Your task to perform on an android device: toggle wifi Image 0: 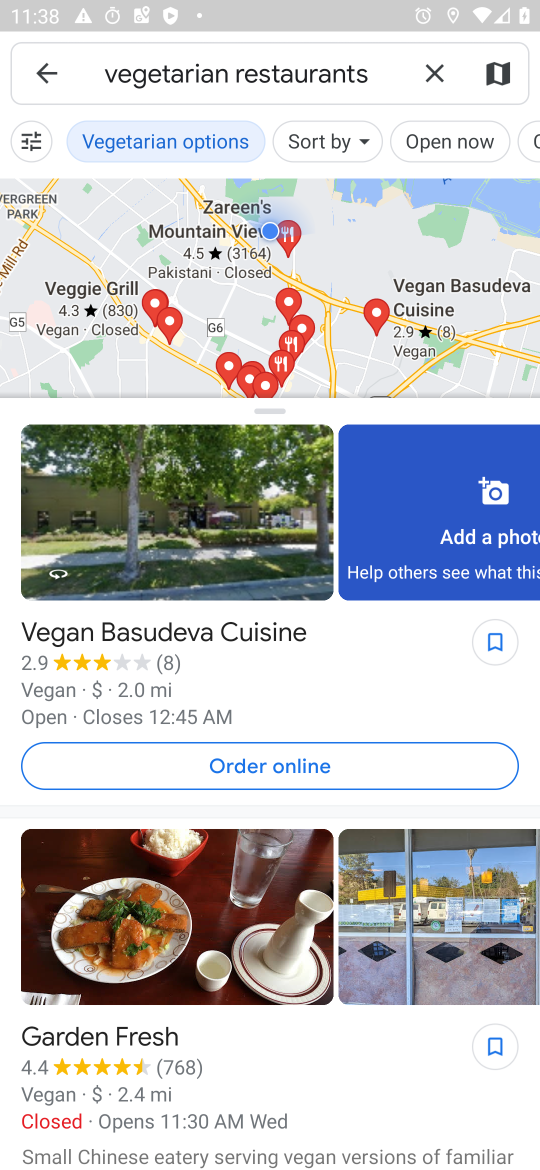
Step 0: press home button
Your task to perform on an android device: toggle wifi Image 1: 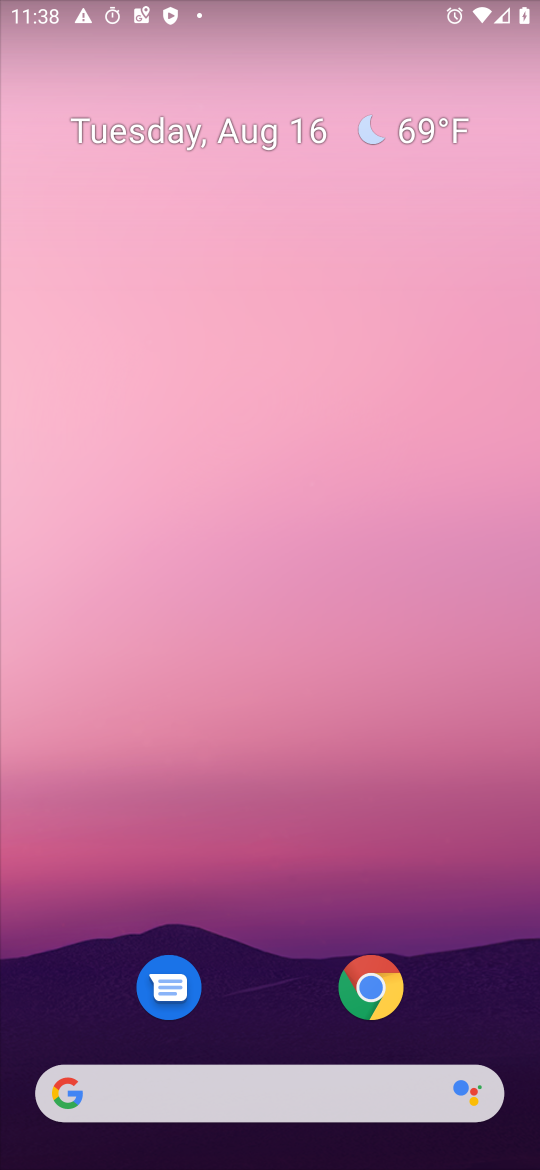
Step 1: drag from (18, 1140) to (349, 198)
Your task to perform on an android device: toggle wifi Image 2: 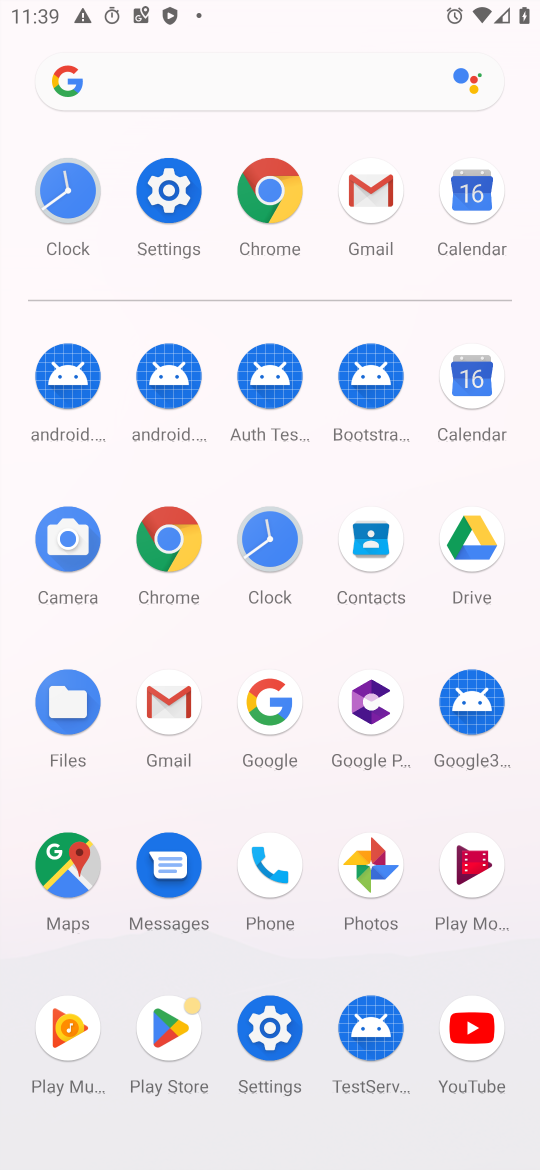
Step 2: click (292, 1019)
Your task to perform on an android device: toggle wifi Image 3: 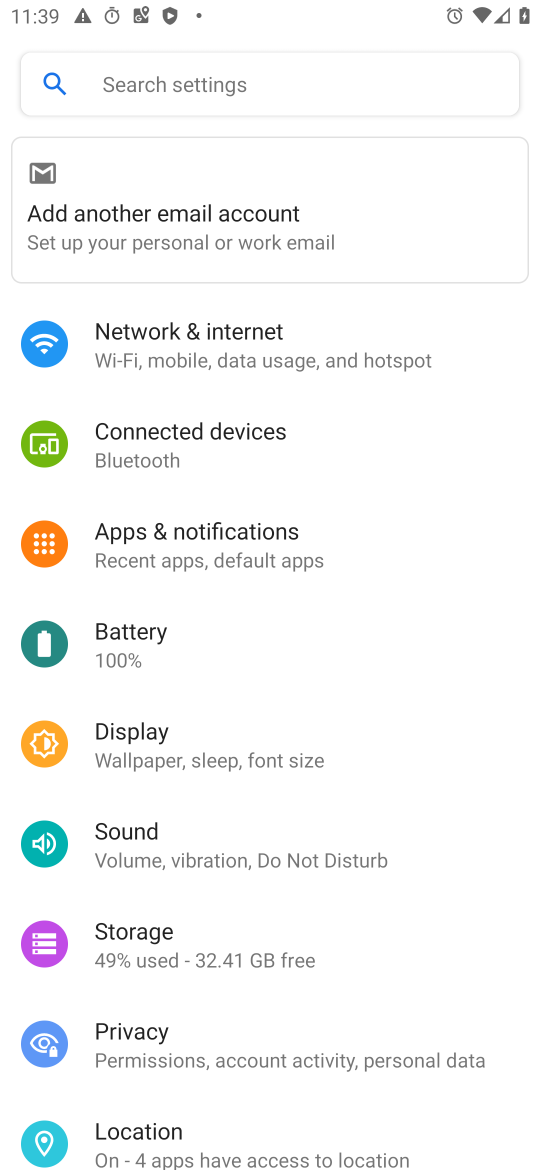
Step 3: click (163, 343)
Your task to perform on an android device: toggle wifi Image 4: 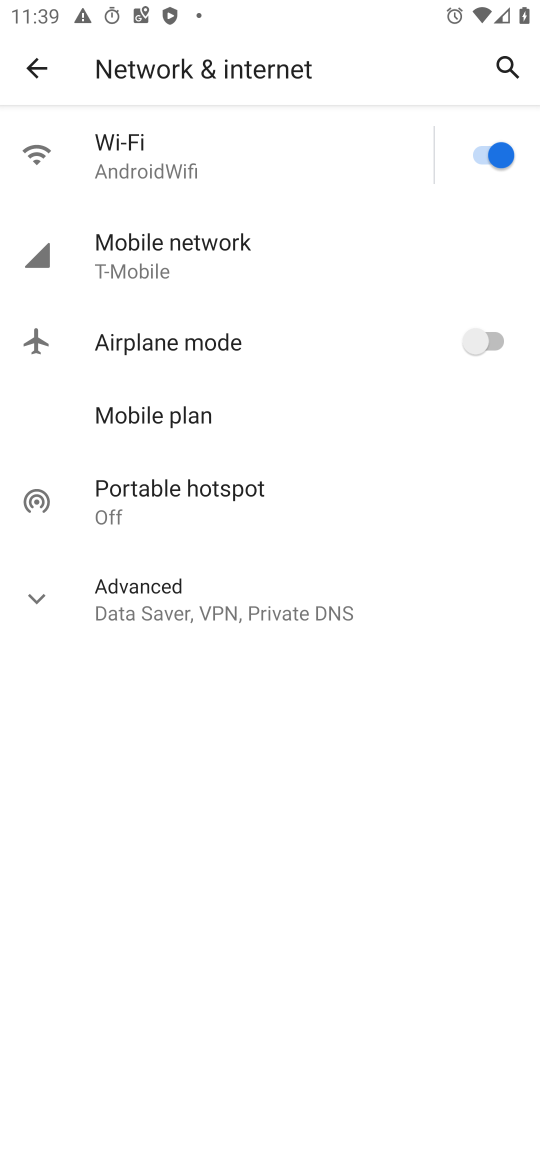
Step 4: task complete